Your task to perform on an android device: What's the weather today? Image 0: 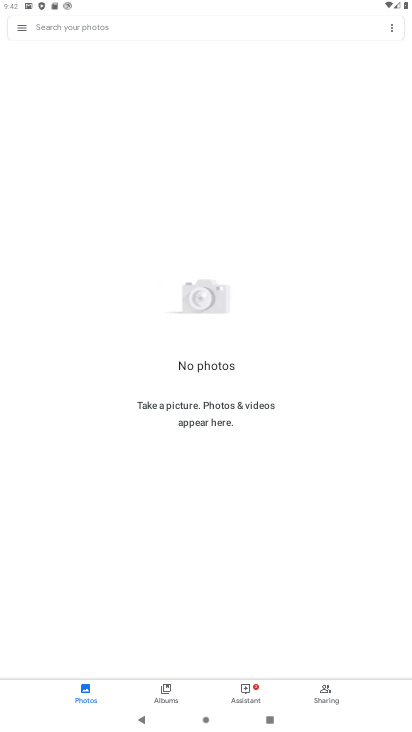
Step 0: click (346, 642)
Your task to perform on an android device: What's the weather today? Image 1: 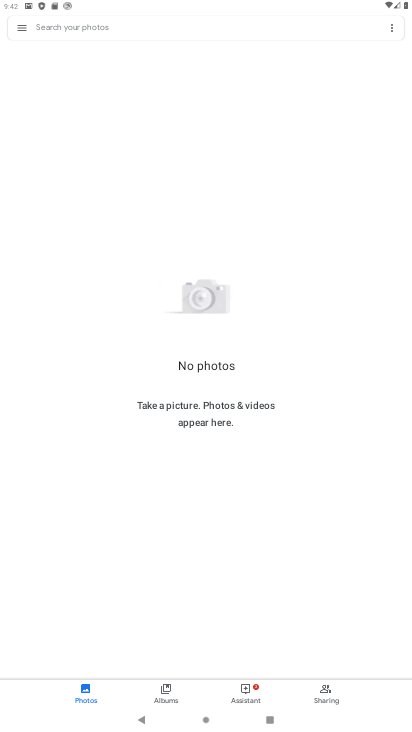
Step 1: press home button
Your task to perform on an android device: What's the weather today? Image 2: 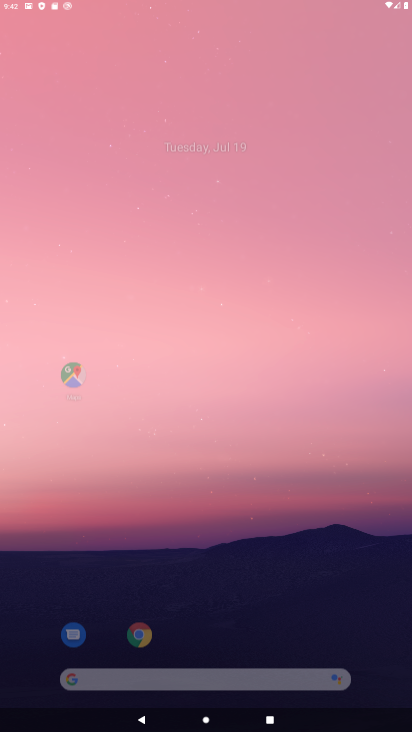
Step 2: drag from (403, 615) to (292, 63)
Your task to perform on an android device: What's the weather today? Image 3: 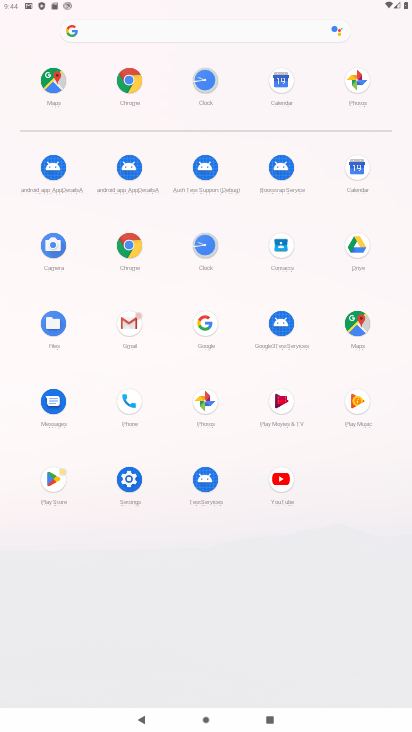
Step 3: click (201, 327)
Your task to perform on an android device: What's the weather today? Image 4: 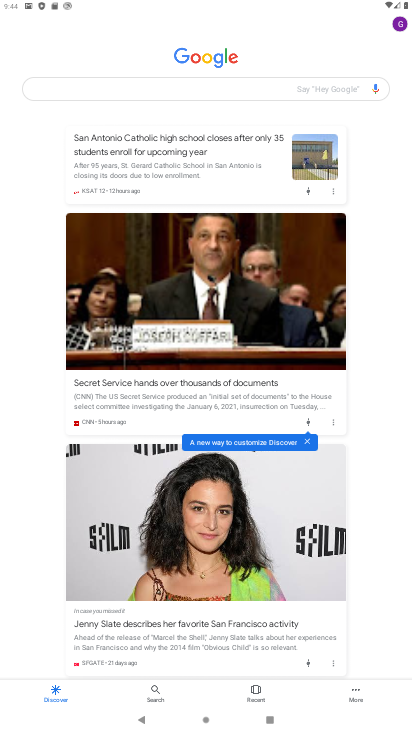
Step 4: click (120, 94)
Your task to perform on an android device: What's the weather today? Image 5: 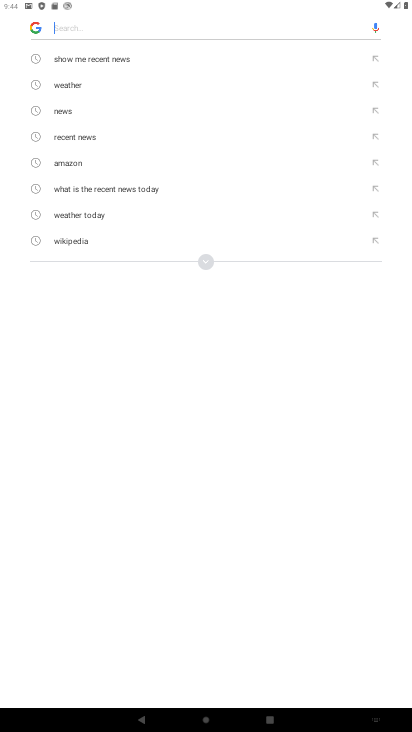
Step 5: type "What's the weather today?"
Your task to perform on an android device: What's the weather today? Image 6: 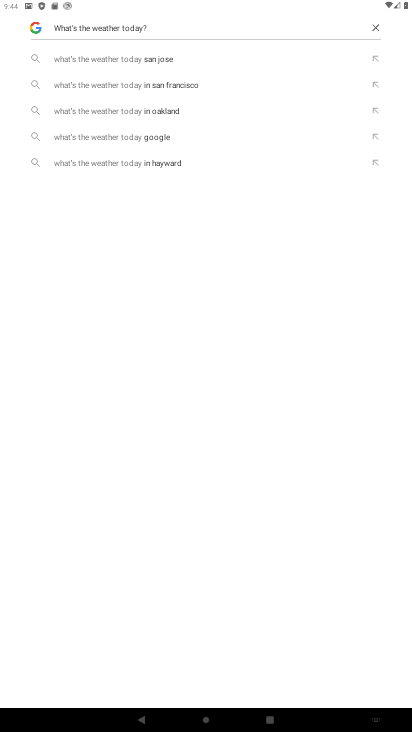
Step 6: click (107, 138)
Your task to perform on an android device: What's the weather today? Image 7: 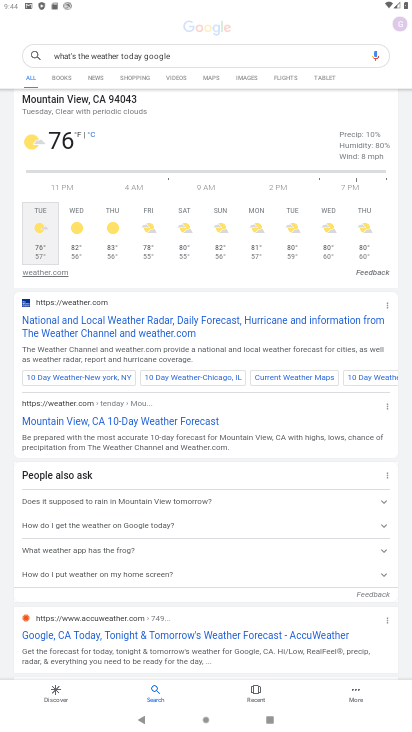
Step 7: task complete